Your task to perform on an android device: change alarm snooze length Image 0: 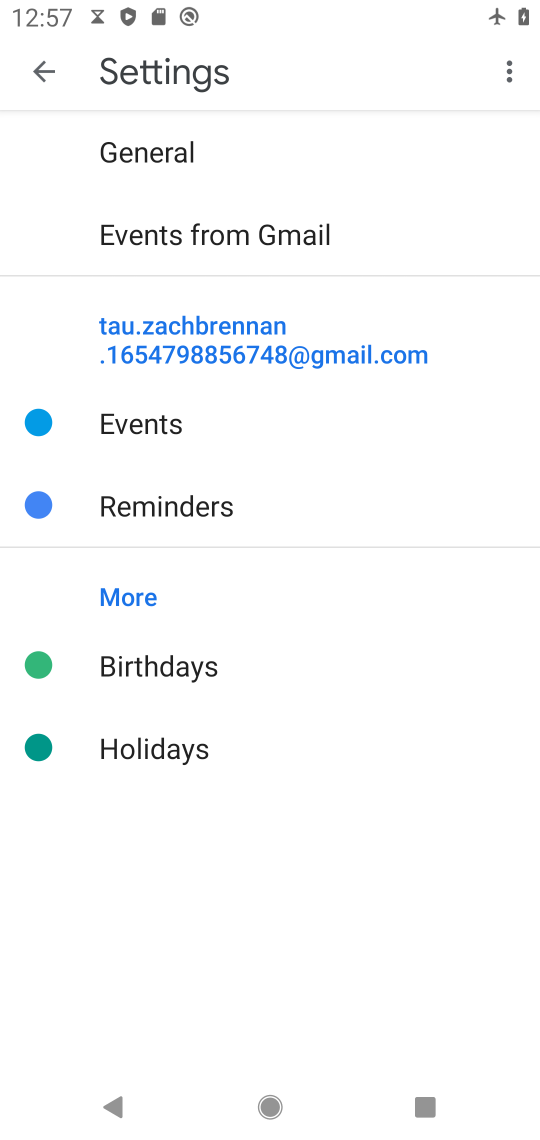
Step 0: press home button
Your task to perform on an android device: change alarm snooze length Image 1: 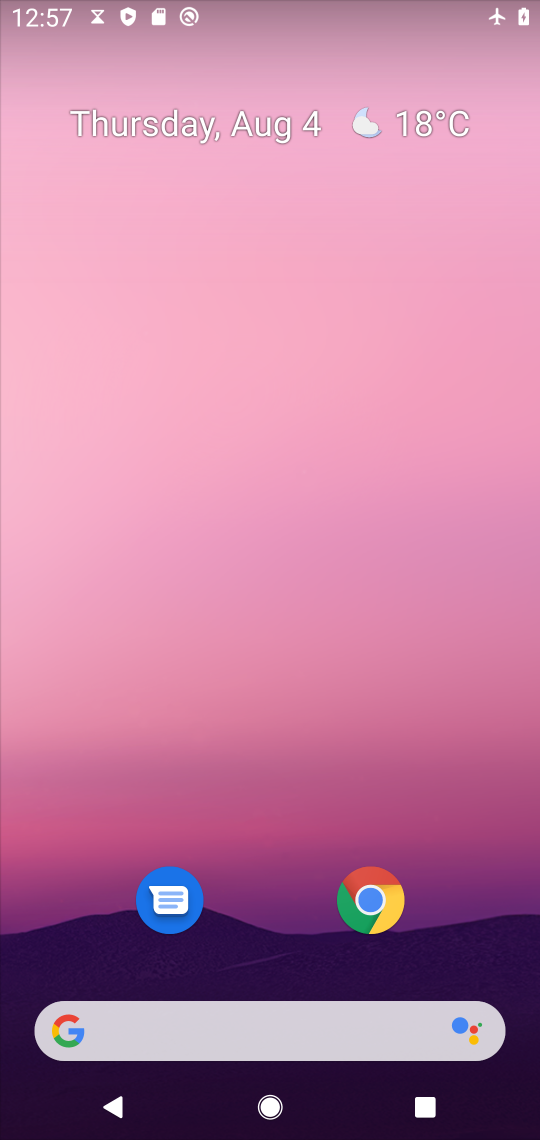
Step 1: drag from (227, 979) to (284, 354)
Your task to perform on an android device: change alarm snooze length Image 2: 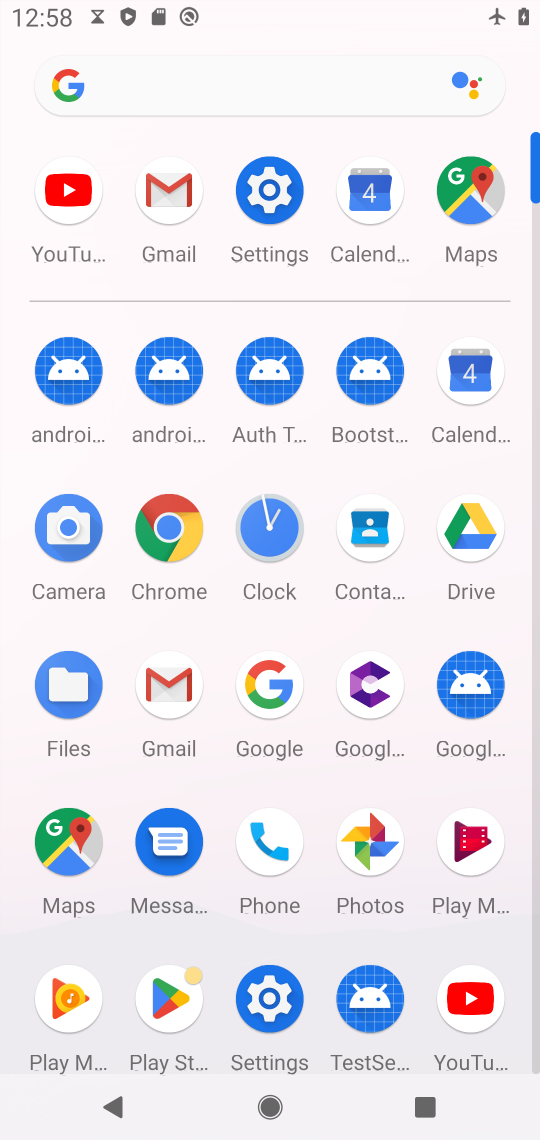
Step 2: click (266, 543)
Your task to perform on an android device: change alarm snooze length Image 3: 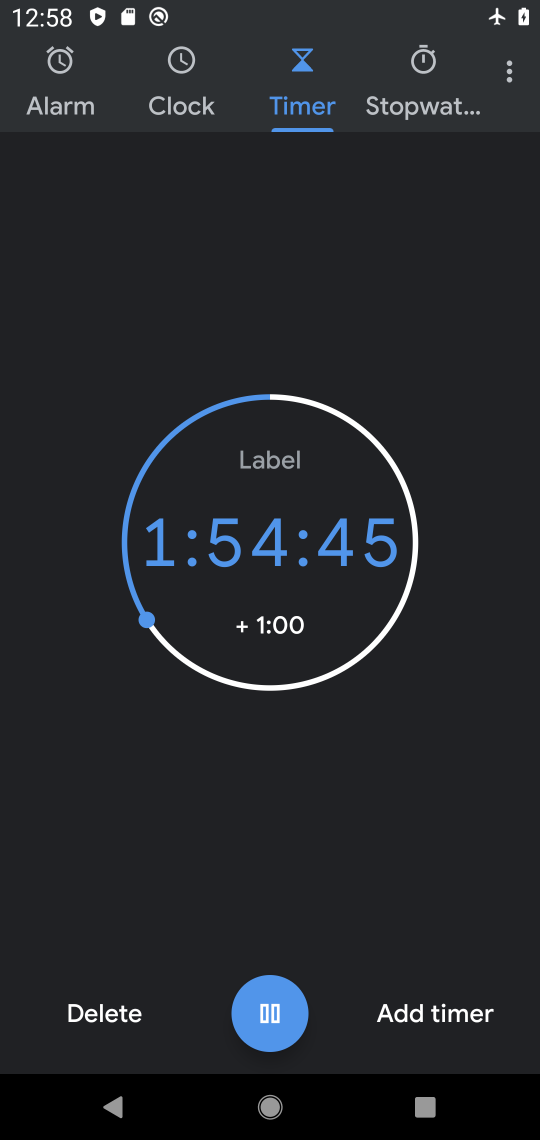
Step 3: click (513, 83)
Your task to perform on an android device: change alarm snooze length Image 4: 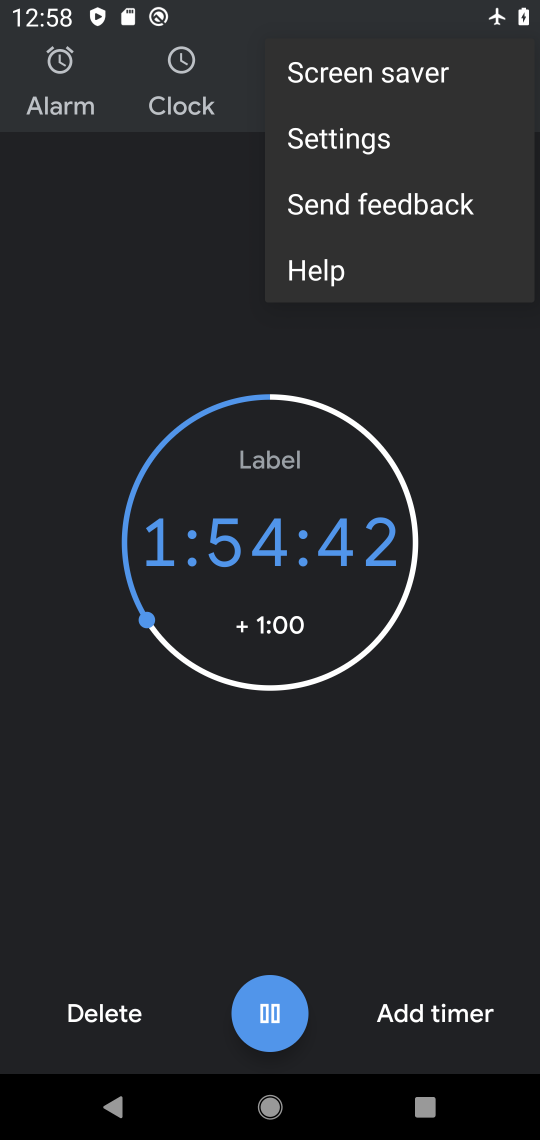
Step 4: click (333, 152)
Your task to perform on an android device: change alarm snooze length Image 5: 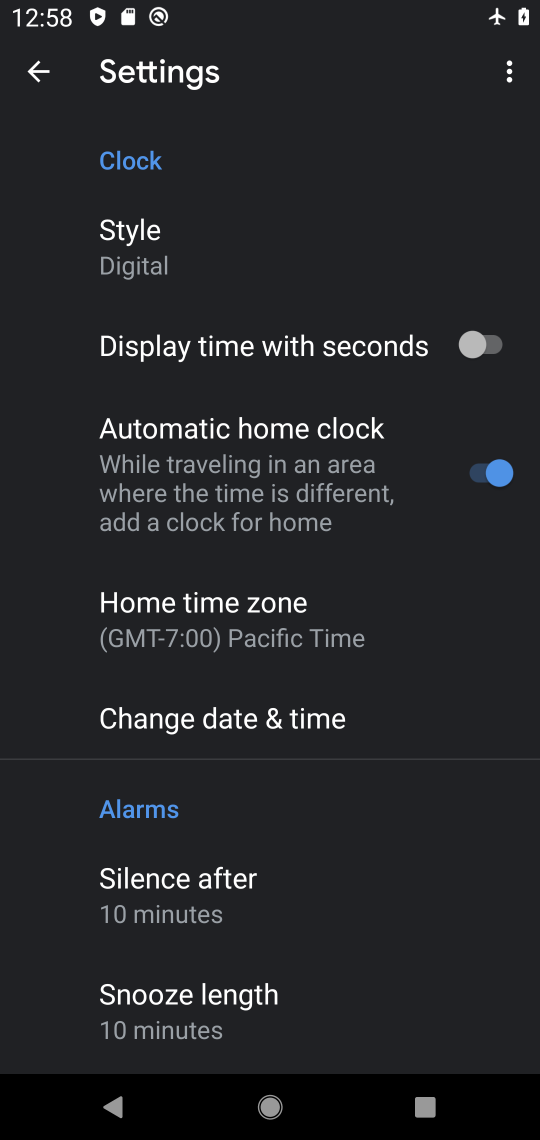
Step 5: click (178, 999)
Your task to perform on an android device: change alarm snooze length Image 6: 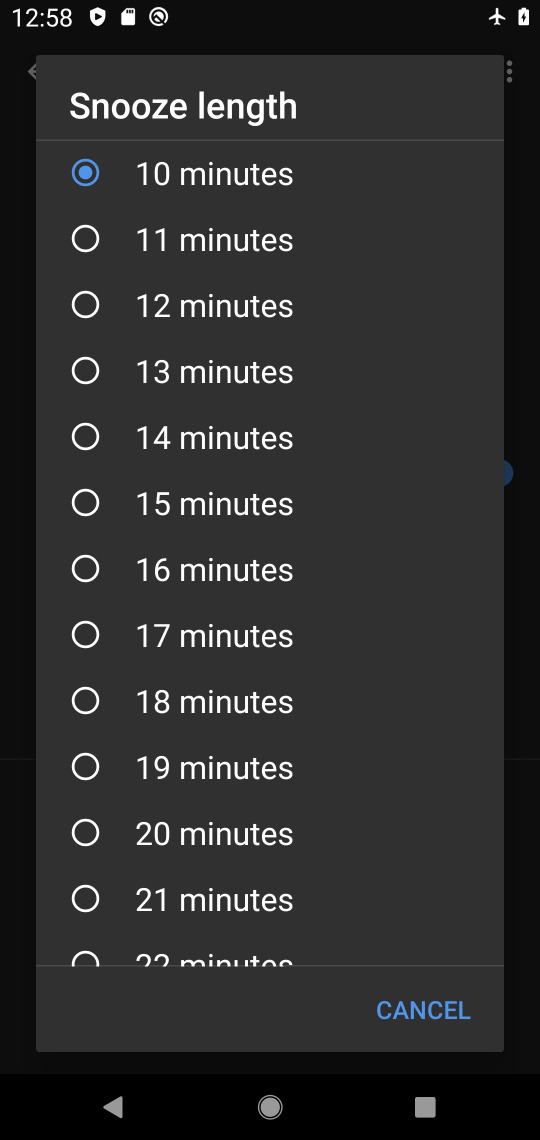
Step 6: click (91, 574)
Your task to perform on an android device: change alarm snooze length Image 7: 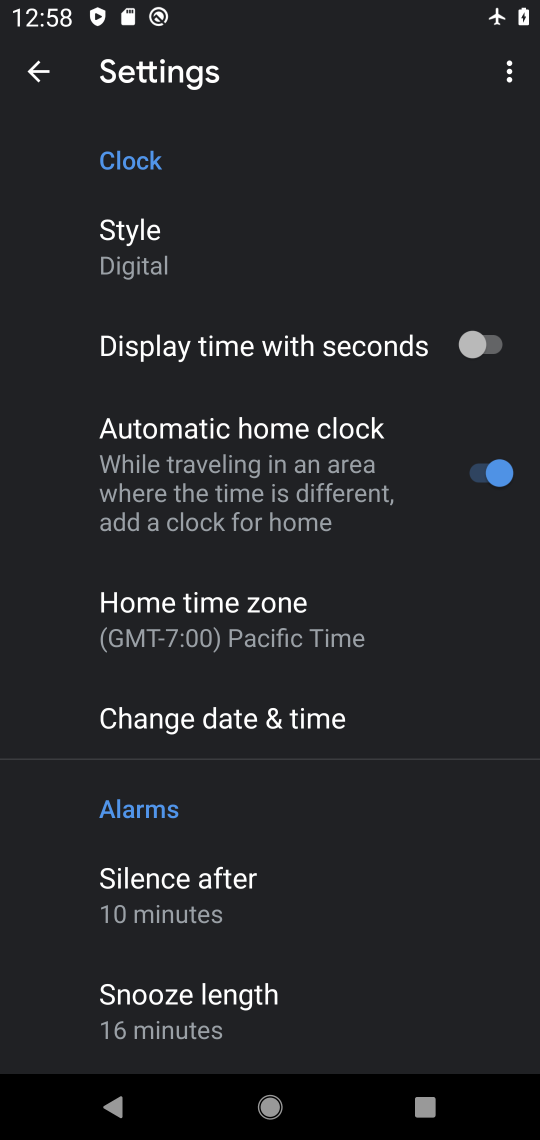
Step 7: task complete